Your task to perform on an android device: What's the weather going to be tomorrow? Image 0: 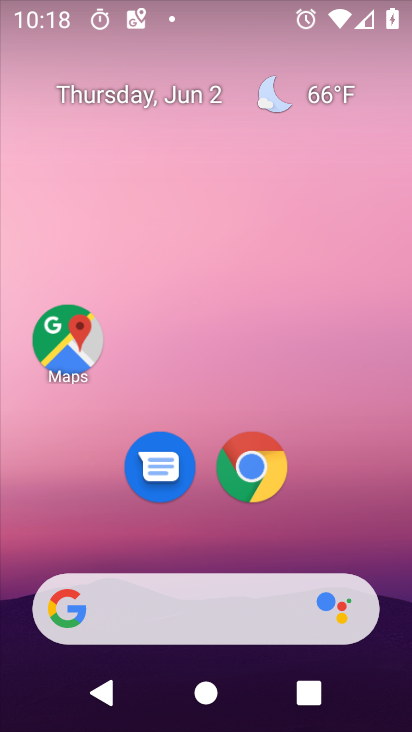
Step 0: drag from (39, 485) to (218, 158)
Your task to perform on an android device: What's the weather going to be tomorrow? Image 1: 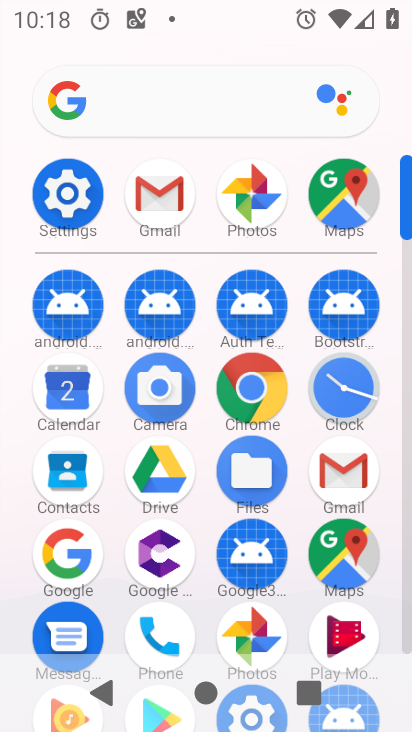
Step 1: press home button
Your task to perform on an android device: What's the weather going to be tomorrow? Image 2: 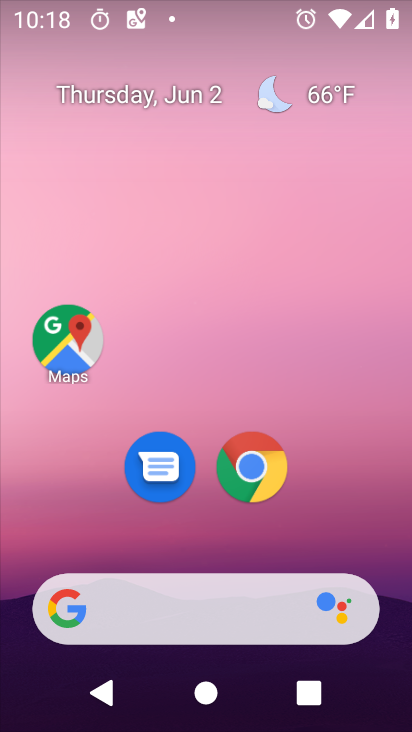
Step 2: click (103, 611)
Your task to perform on an android device: What's the weather going to be tomorrow? Image 3: 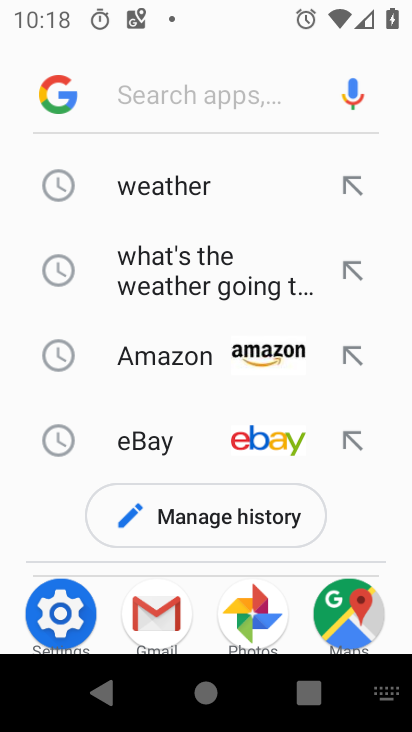
Step 3: click (160, 180)
Your task to perform on an android device: What's the weather going to be tomorrow? Image 4: 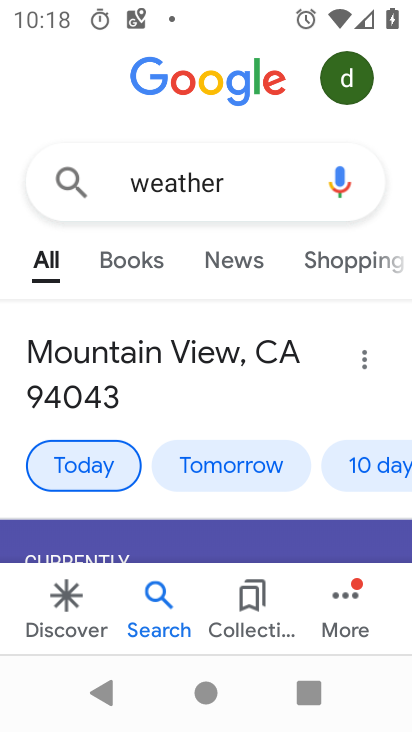
Step 4: task complete